Your task to perform on an android device: turn off picture-in-picture Image 0: 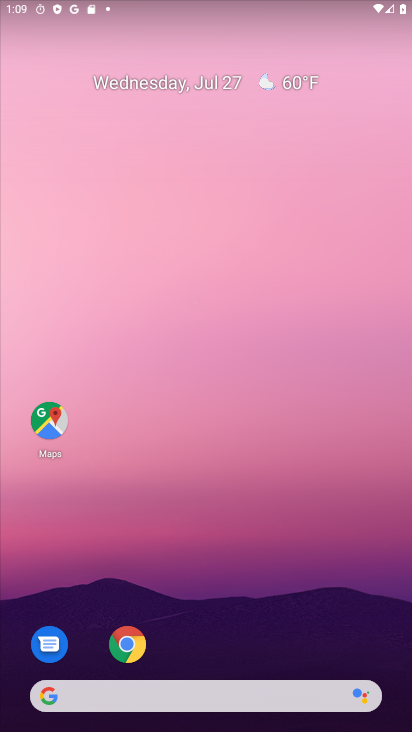
Step 0: drag from (227, 629) to (228, 451)
Your task to perform on an android device: turn off picture-in-picture Image 1: 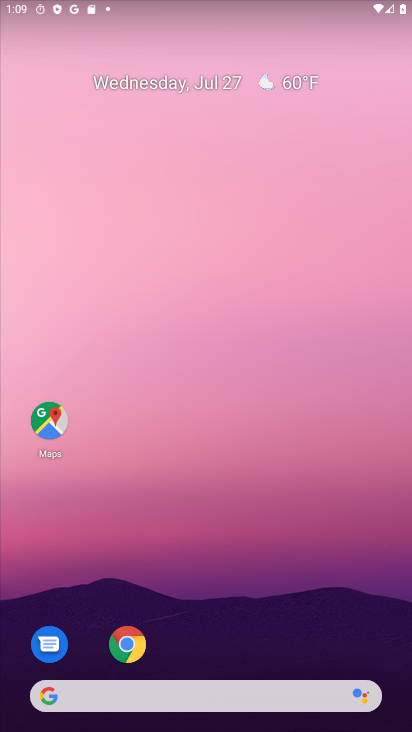
Step 1: click (189, 294)
Your task to perform on an android device: turn off picture-in-picture Image 2: 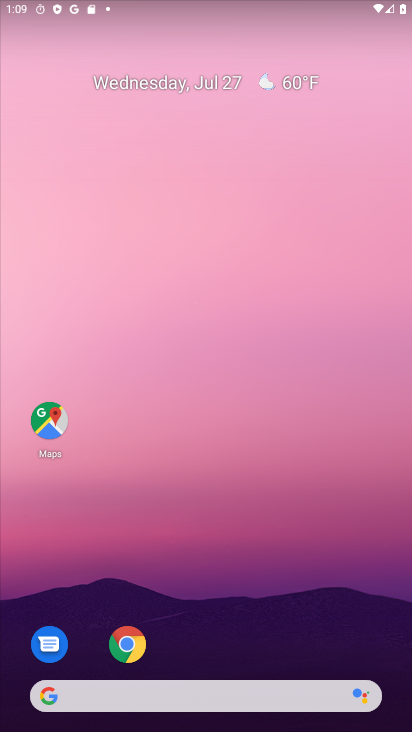
Step 2: drag from (214, 662) to (230, 256)
Your task to perform on an android device: turn off picture-in-picture Image 3: 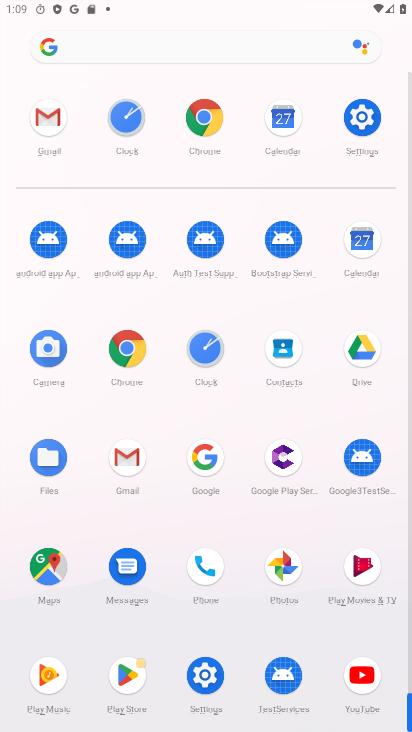
Step 3: drag from (228, 620) to (229, 295)
Your task to perform on an android device: turn off picture-in-picture Image 4: 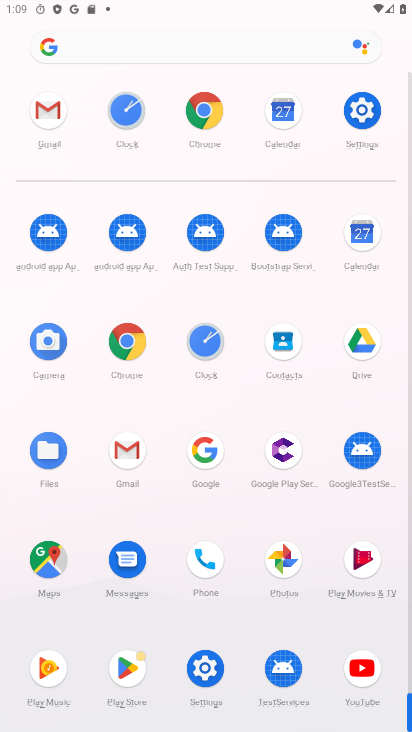
Step 4: click (201, 663)
Your task to perform on an android device: turn off picture-in-picture Image 5: 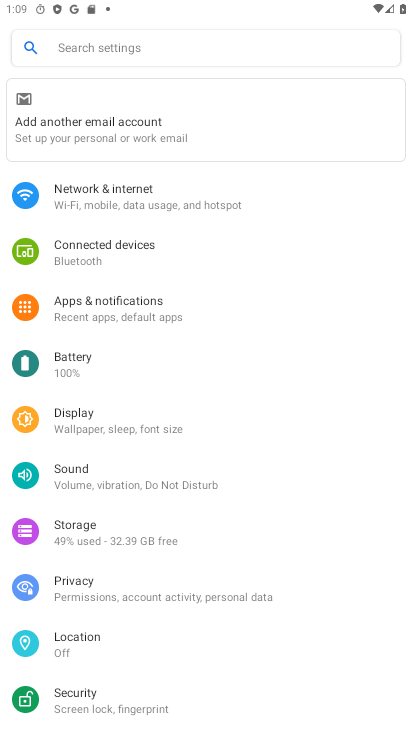
Step 5: drag from (204, 597) to (209, 311)
Your task to perform on an android device: turn off picture-in-picture Image 6: 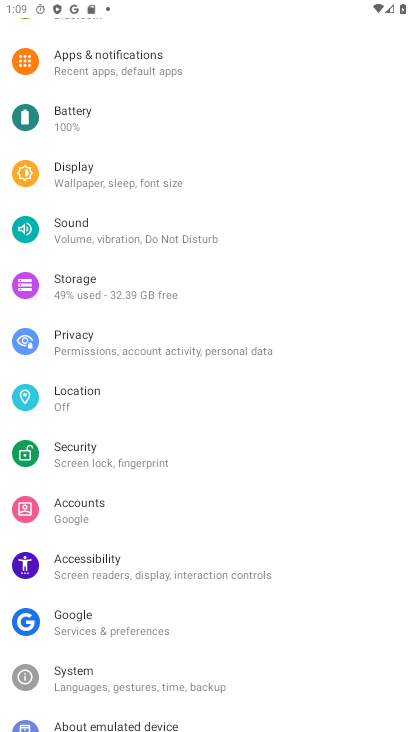
Step 6: drag from (170, 547) to (198, 303)
Your task to perform on an android device: turn off picture-in-picture Image 7: 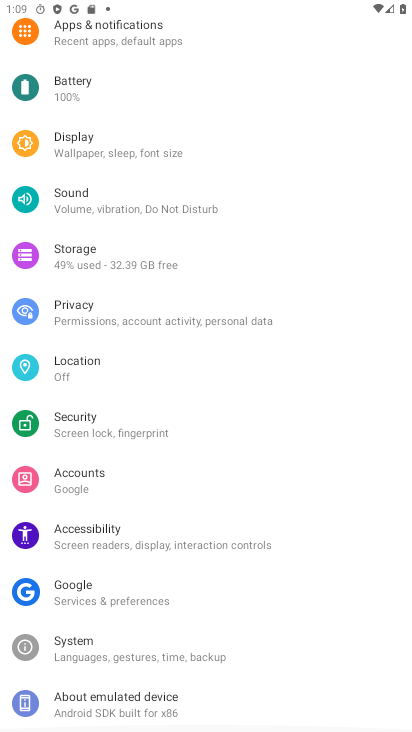
Step 7: drag from (227, 212) to (205, 656)
Your task to perform on an android device: turn off picture-in-picture Image 8: 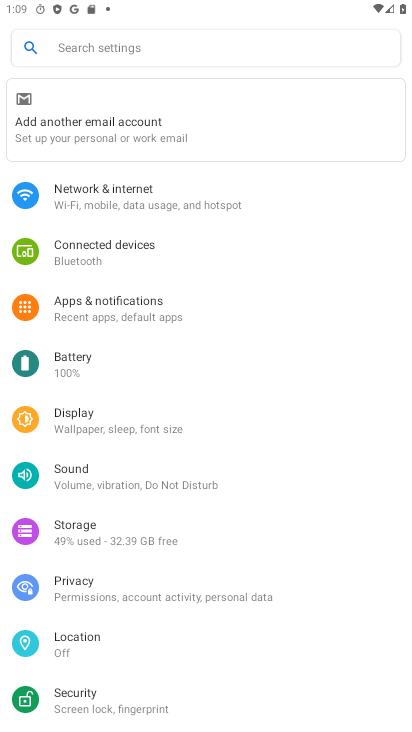
Step 8: click (124, 314)
Your task to perform on an android device: turn off picture-in-picture Image 9: 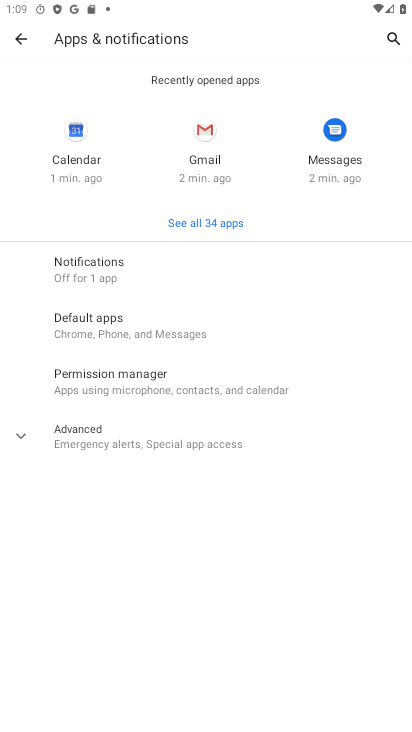
Step 9: click (109, 267)
Your task to perform on an android device: turn off picture-in-picture Image 10: 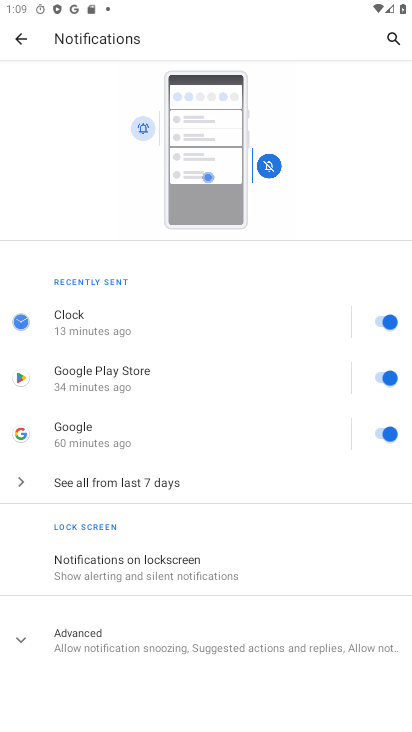
Step 10: drag from (224, 512) to (222, 317)
Your task to perform on an android device: turn off picture-in-picture Image 11: 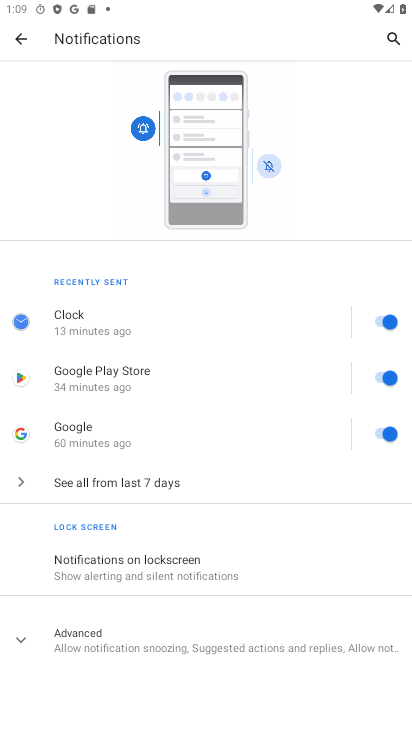
Step 11: drag from (196, 482) to (172, 289)
Your task to perform on an android device: turn off picture-in-picture Image 12: 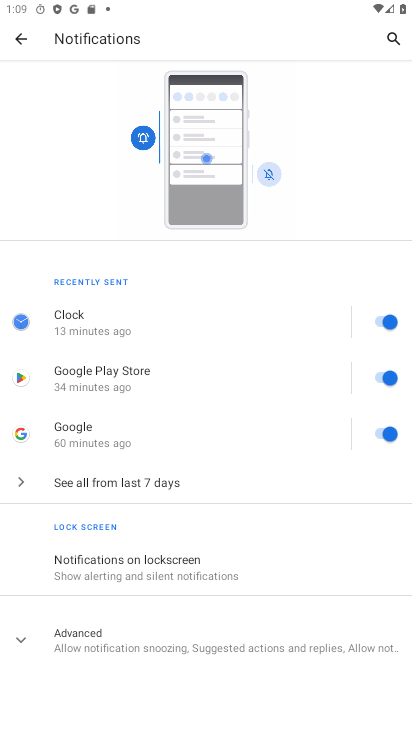
Step 12: drag from (228, 566) to (174, 187)
Your task to perform on an android device: turn off picture-in-picture Image 13: 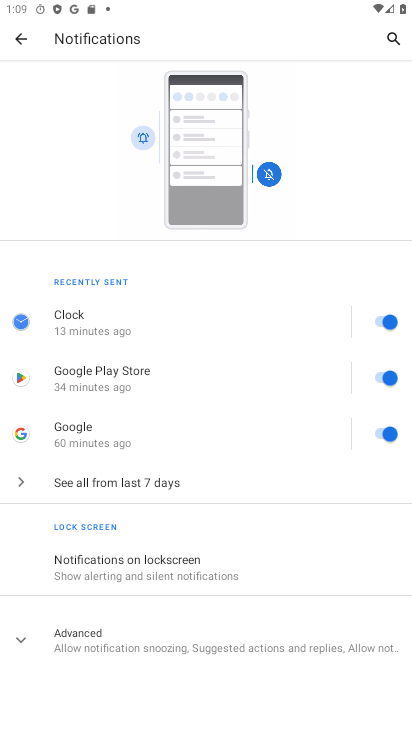
Step 13: drag from (177, 631) to (136, 234)
Your task to perform on an android device: turn off picture-in-picture Image 14: 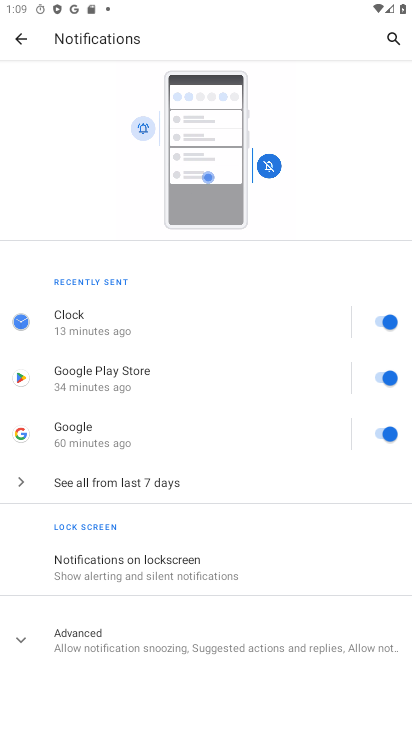
Step 14: click (126, 644)
Your task to perform on an android device: turn off picture-in-picture Image 15: 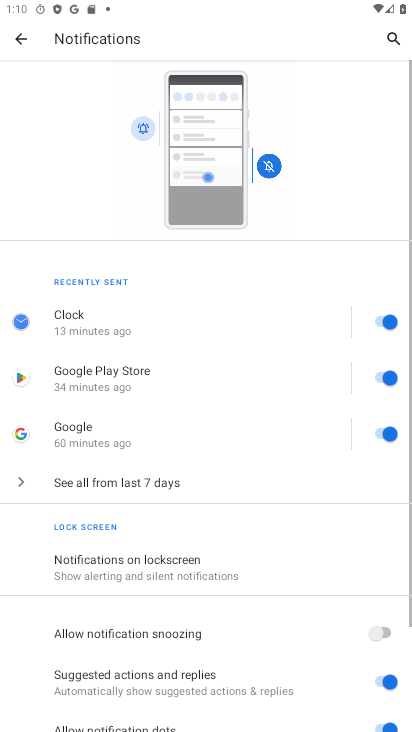
Step 15: drag from (132, 618) to (152, 278)
Your task to perform on an android device: turn off picture-in-picture Image 16: 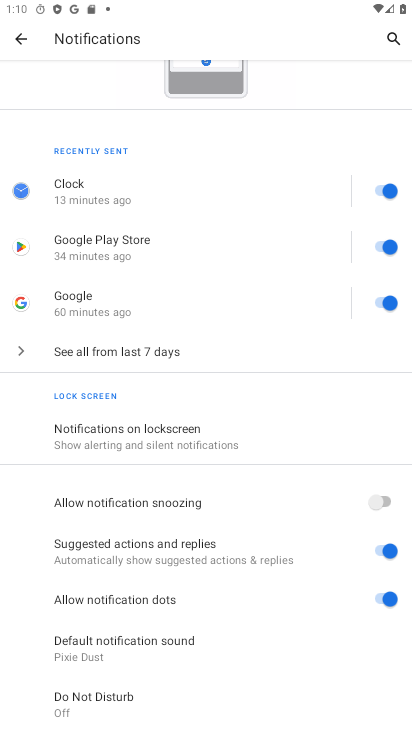
Step 16: drag from (217, 500) to (190, 322)
Your task to perform on an android device: turn off picture-in-picture Image 17: 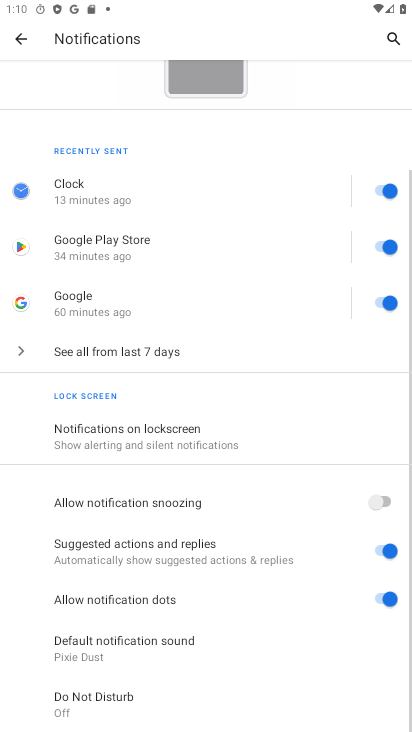
Step 17: drag from (165, 607) to (176, 336)
Your task to perform on an android device: turn off picture-in-picture Image 18: 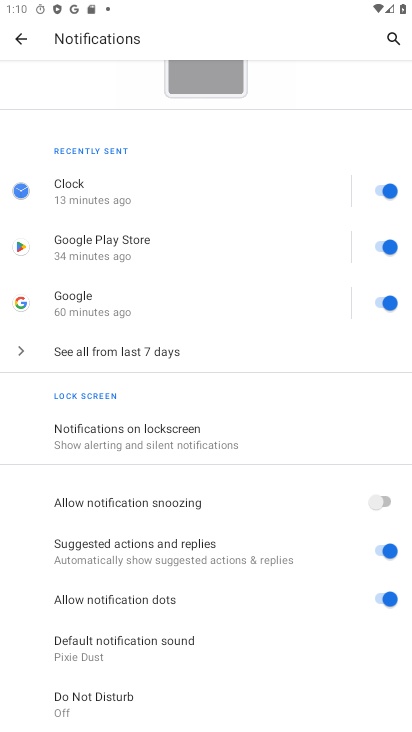
Step 18: drag from (235, 661) to (229, 384)
Your task to perform on an android device: turn off picture-in-picture Image 19: 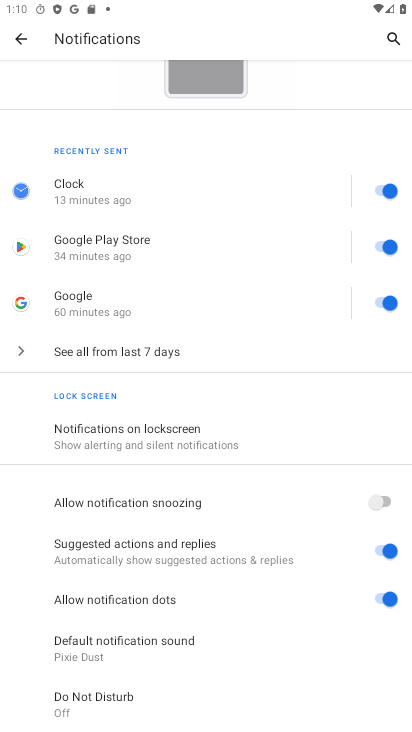
Step 19: drag from (204, 333) to (223, 664)
Your task to perform on an android device: turn off picture-in-picture Image 20: 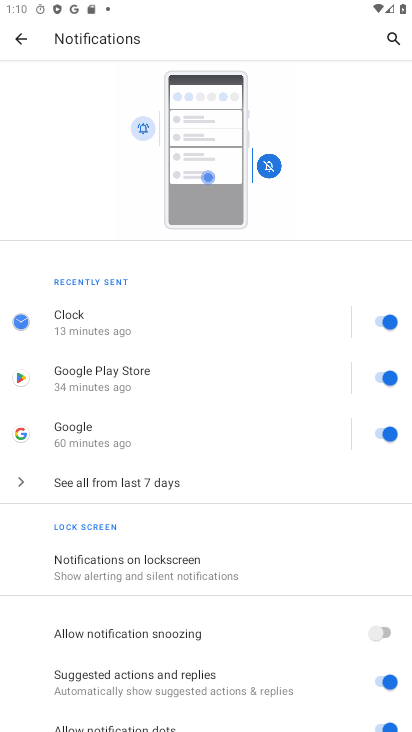
Step 20: click (25, 26)
Your task to perform on an android device: turn off picture-in-picture Image 21: 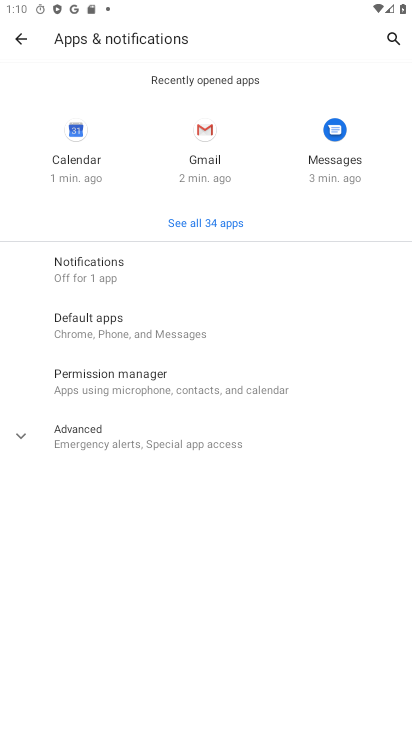
Step 21: click (154, 426)
Your task to perform on an android device: turn off picture-in-picture Image 22: 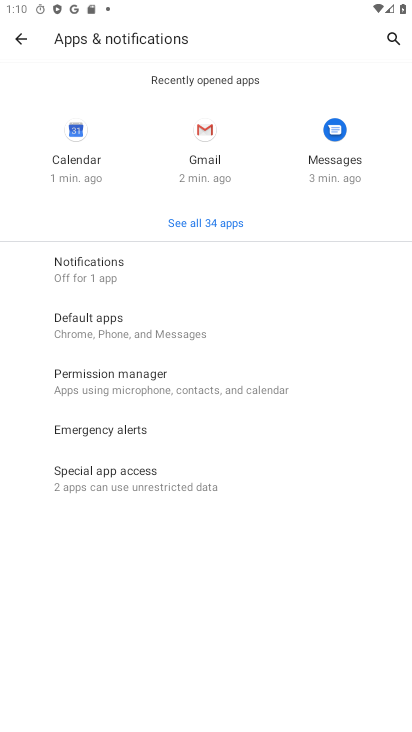
Step 22: click (128, 484)
Your task to perform on an android device: turn off picture-in-picture Image 23: 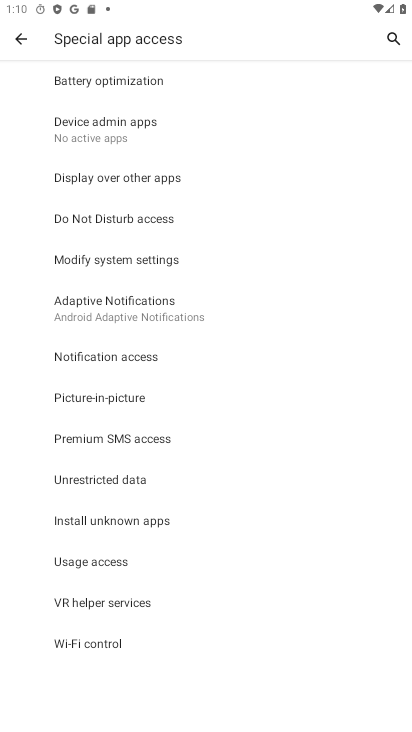
Step 23: click (85, 394)
Your task to perform on an android device: turn off picture-in-picture Image 24: 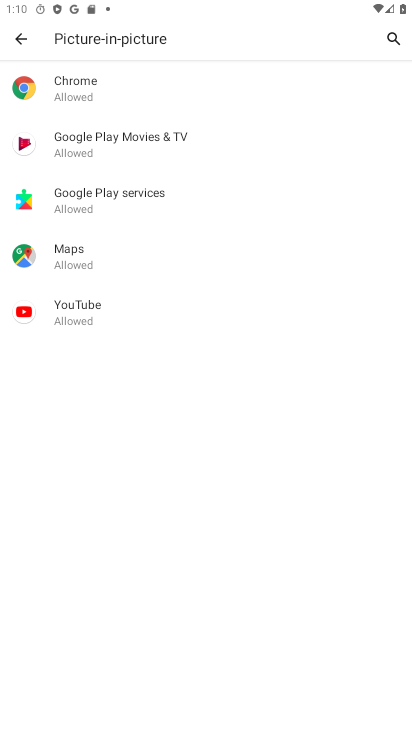
Step 24: task complete